Your task to perform on an android device: read, delete, or share a saved page in the chrome app Image 0: 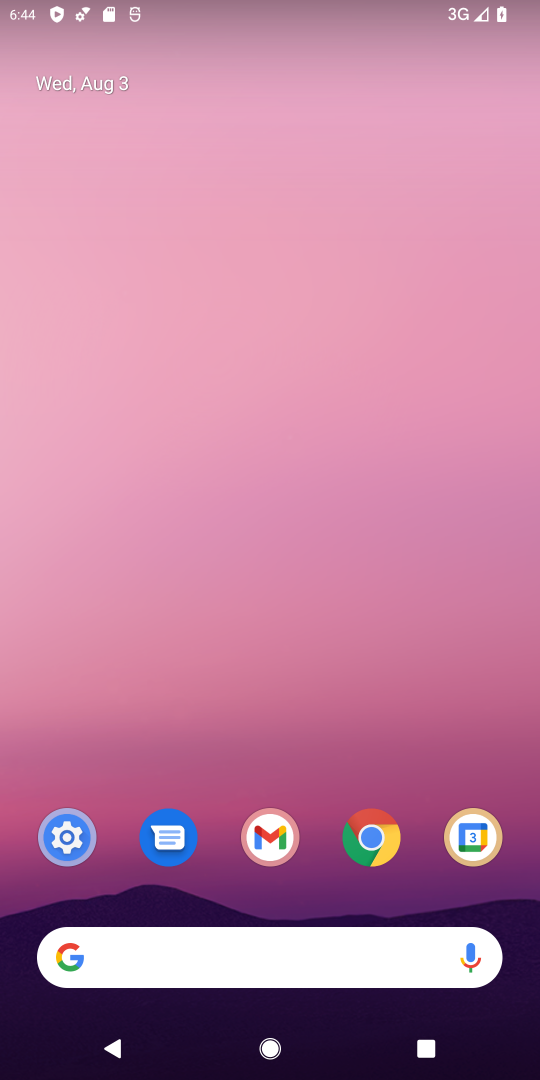
Step 0: press home button
Your task to perform on an android device: read, delete, or share a saved page in the chrome app Image 1: 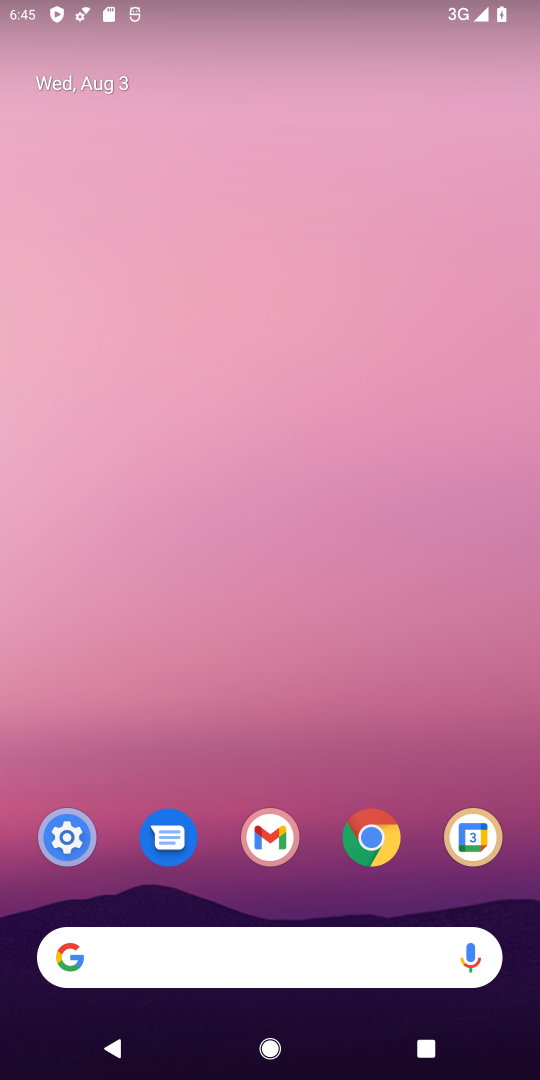
Step 1: press home button
Your task to perform on an android device: read, delete, or share a saved page in the chrome app Image 2: 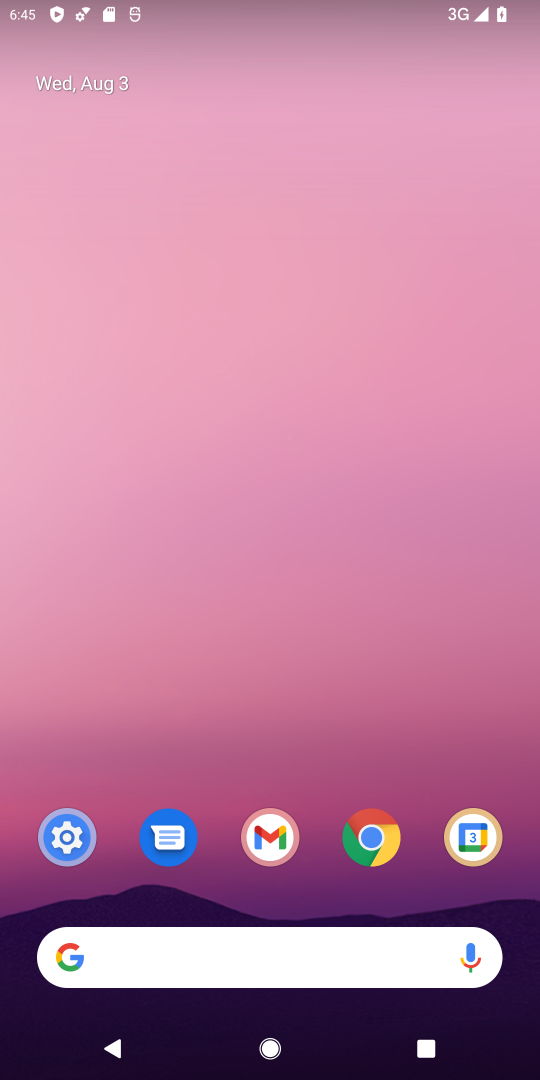
Step 2: drag from (276, 656) to (519, 807)
Your task to perform on an android device: read, delete, or share a saved page in the chrome app Image 3: 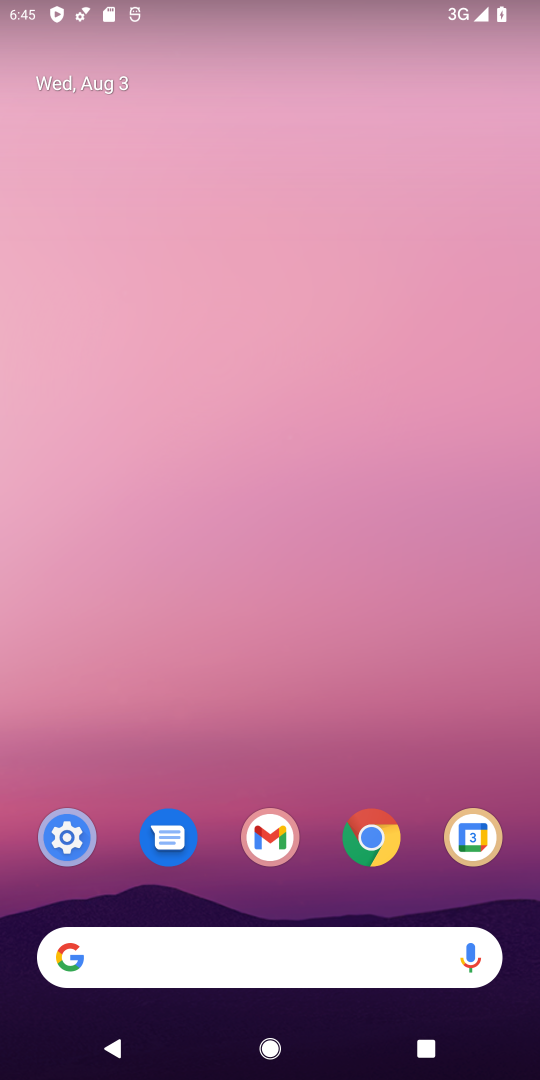
Step 3: drag from (315, 733) to (492, 18)
Your task to perform on an android device: read, delete, or share a saved page in the chrome app Image 4: 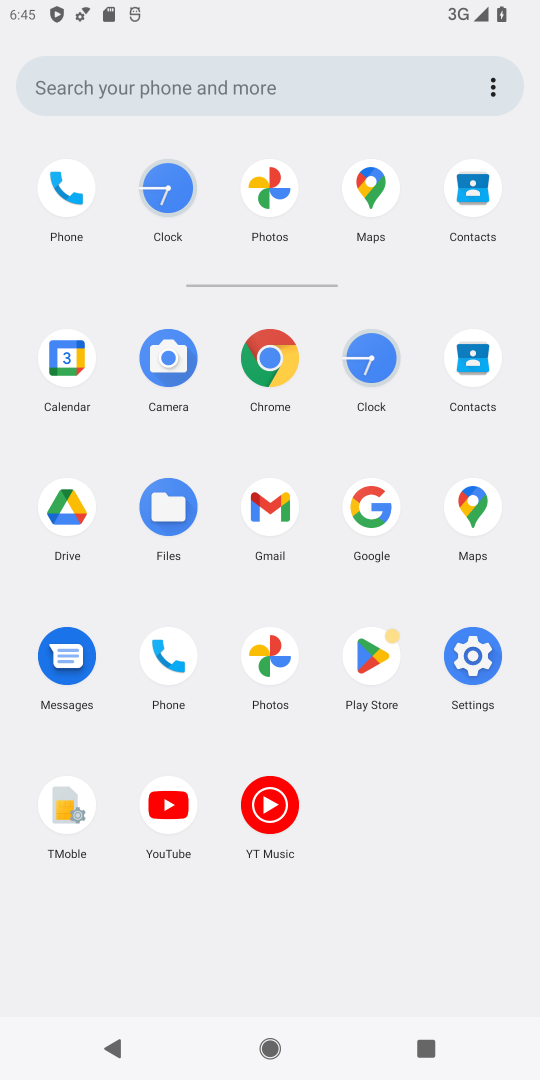
Step 4: click (266, 365)
Your task to perform on an android device: read, delete, or share a saved page in the chrome app Image 5: 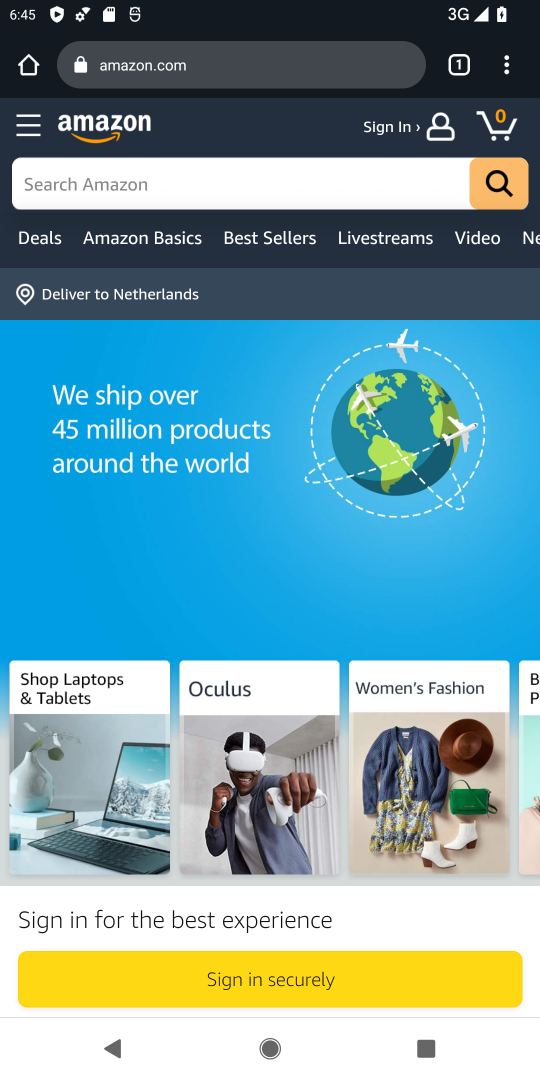
Step 5: task complete